Your task to perform on an android device: Search for "usb-a to usb-b" on target, select the first entry, add it to the cart, then select checkout. Image 0: 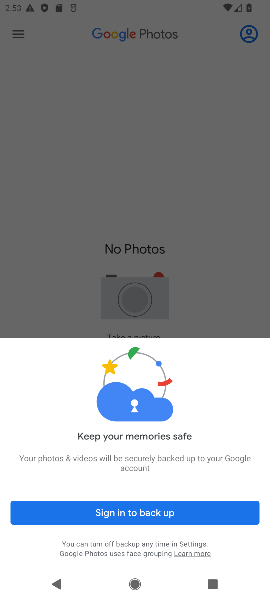
Step 0: press home button
Your task to perform on an android device: Search for "usb-a to usb-b" on target, select the first entry, add it to the cart, then select checkout. Image 1: 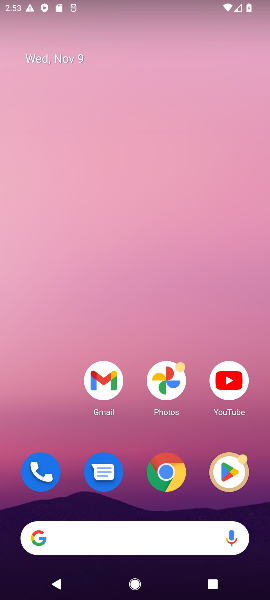
Step 1: click (120, 533)
Your task to perform on an android device: Search for "usb-a to usb-b" on target, select the first entry, add it to the cart, then select checkout. Image 2: 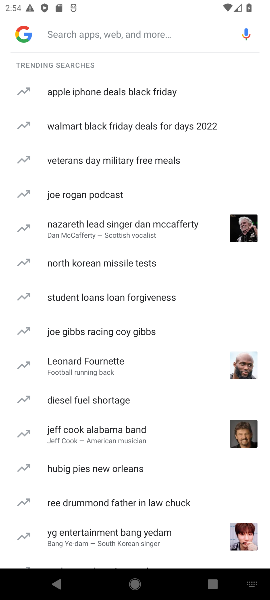
Step 2: type "target"
Your task to perform on an android device: Search for "usb-a to usb-b" on target, select the first entry, add it to the cart, then select checkout. Image 3: 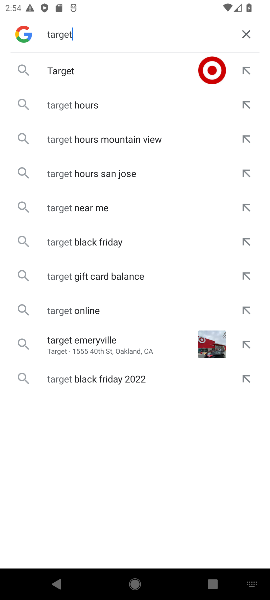
Step 3: click (64, 70)
Your task to perform on an android device: Search for "usb-a to usb-b" on target, select the first entry, add it to the cart, then select checkout. Image 4: 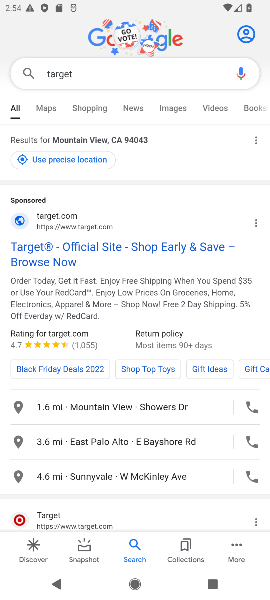
Step 4: click (45, 211)
Your task to perform on an android device: Search for "usb-a to usb-b" on target, select the first entry, add it to the cart, then select checkout. Image 5: 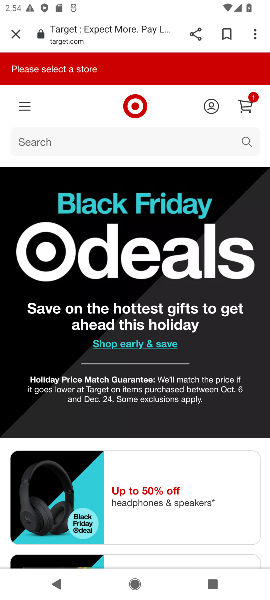
Step 5: click (62, 139)
Your task to perform on an android device: Search for "usb-a to usb-b" on target, select the first entry, add it to the cart, then select checkout. Image 6: 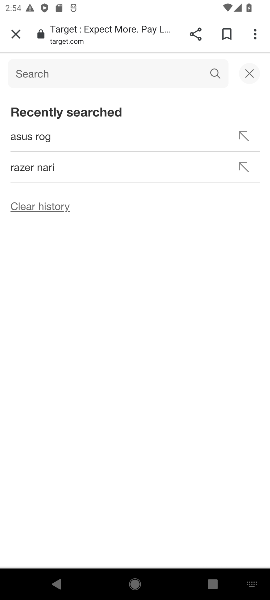
Step 6: type "usb-a to usb-b"
Your task to perform on an android device: Search for "usb-a to usb-b" on target, select the first entry, add it to the cart, then select checkout. Image 7: 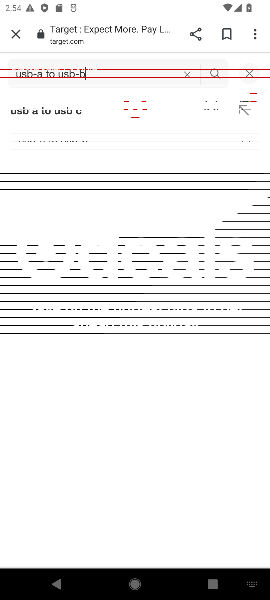
Step 7: click (214, 72)
Your task to perform on an android device: Search for "usb-a to usb-b" on target, select the first entry, add it to the cart, then select checkout. Image 8: 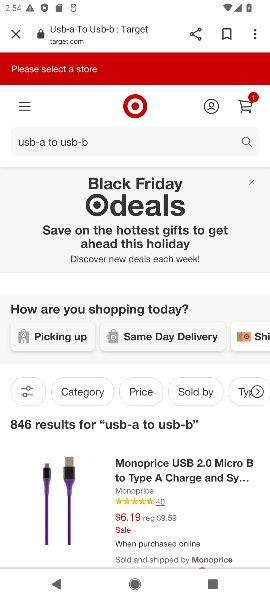
Step 8: drag from (208, 516) to (195, 393)
Your task to perform on an android device: Search for "usb-a to usb-b" on target, select the first entry, add it to the cart, then select checkout. Image 9: 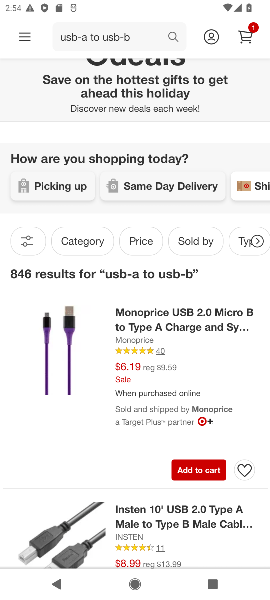
Step 9: click (199, 469)
Your task to perform on an android device: Search for "usb-a to usb-b" on target, select the first entry, add it to the cart, then select checkout. Image 10: 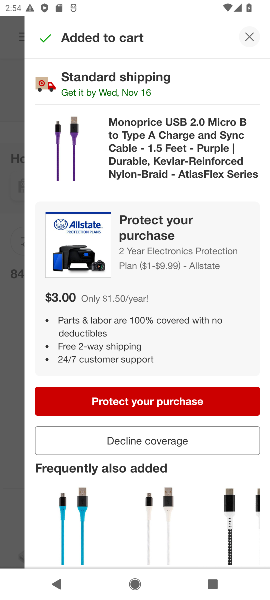
Step 10: click (249, 35)
Your task to perform on an android device: Search for "usb-a to usb-b" on target, select the first entry, add it to the cart, then select checkout. Image 11: 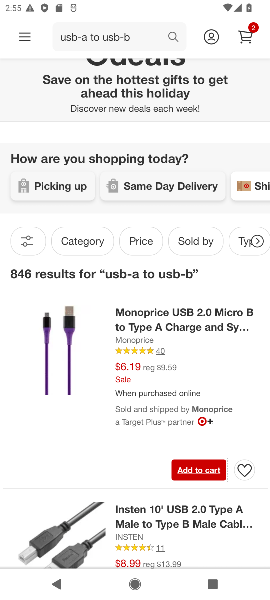
Step 11: click (249, 35)
Your task to perform on an android device: Search for "usb-a to usb-b" on target, select the first entry, add it to the cart, then select checkout. Image 12: 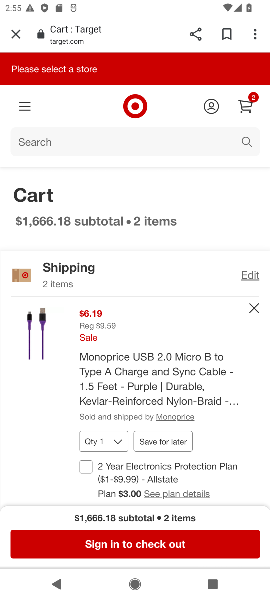
Step 12: click (135, 544)
Your task to perform on an android device: Search for "usb-a to usb-b" on target, select the first entry, add it to the cart, then select checkout. Image 13: 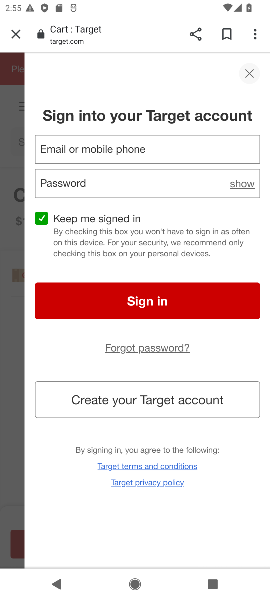
Step 13: task complete